Your task to perform on an android device: Show me recent news Image 0: 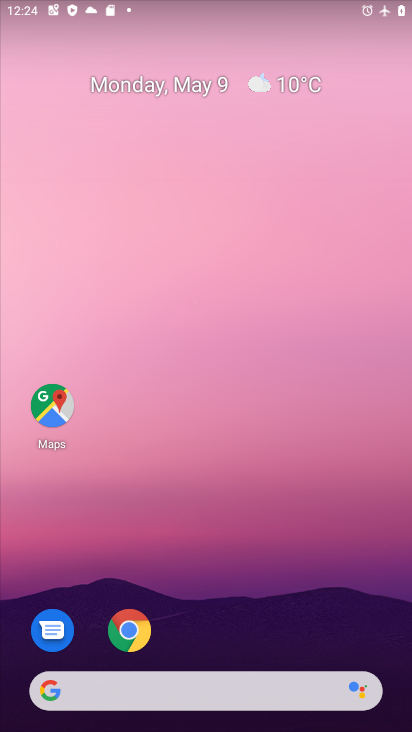
Step 0: drag from (319, 585) to (257, 47)
Your task to perform on an android device: Show me recent news Image 1: 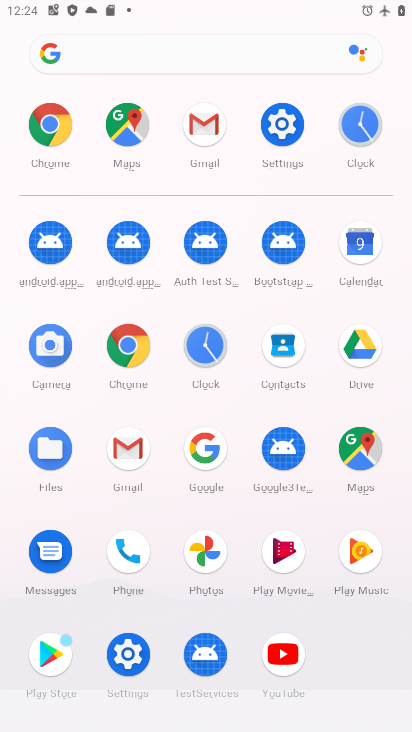
Step 1: click (132, 358)
Your task to perform on an android device: Show me recent news Image 2: 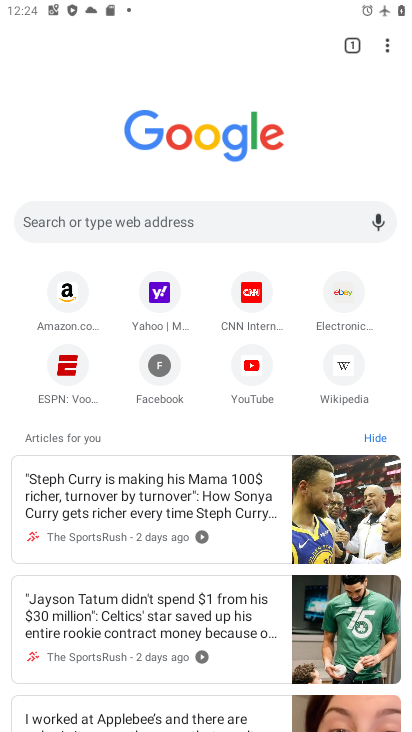
Step 2: click (174, 481)
Your task to perform on an android device: Show me recent news Image 3: 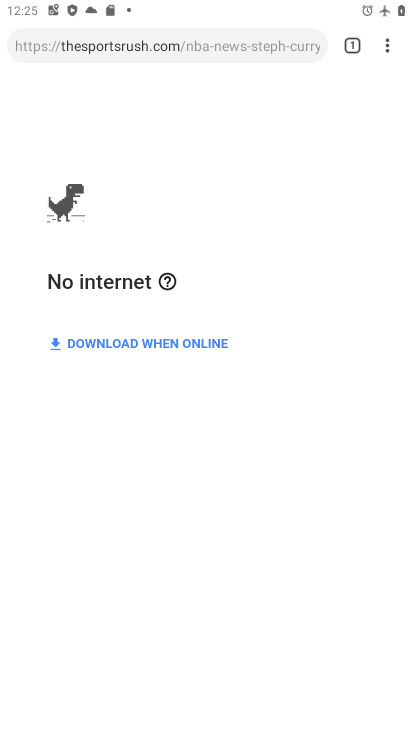
Step 3: task complete